Your task to perform on an android device: toggle translation in the chrome app Image 0: 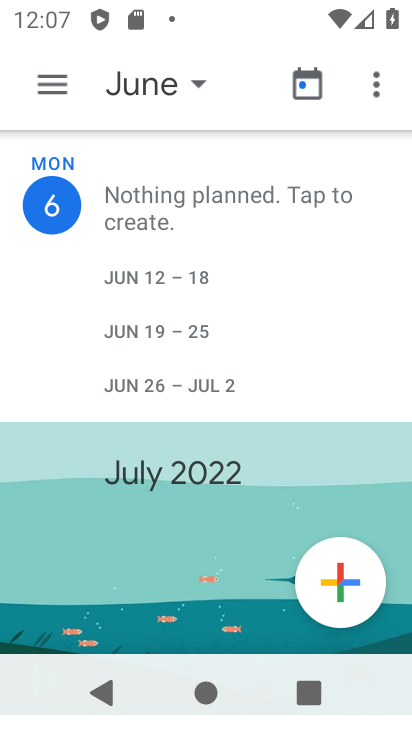
Step 0: press home button
Your task to perform on an android device: toggle translation in the chrome app Image 1: 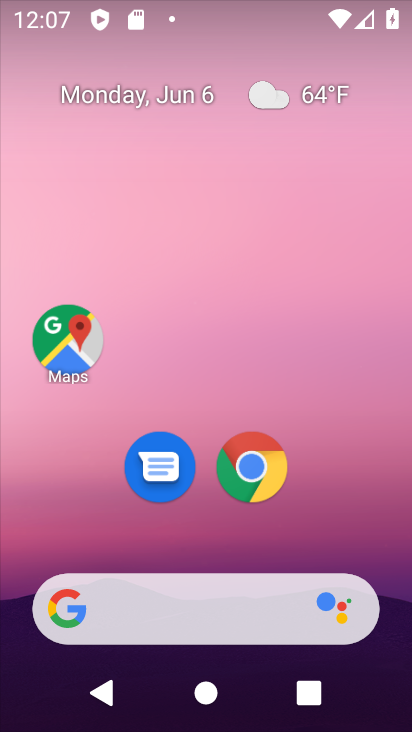
Step 1: click (270, 477)
Your task to perform on an android device: toggle translation in the chrome app Image 2: 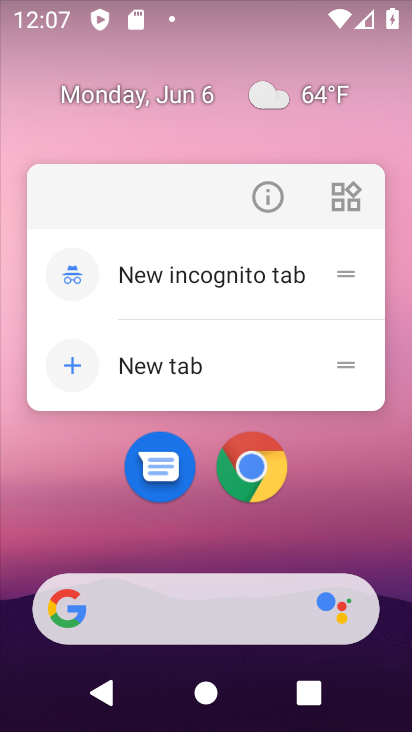
Step 2: click (270, 477)
Your task to perform on an android device: toggle translation in the chrome app Image 3: 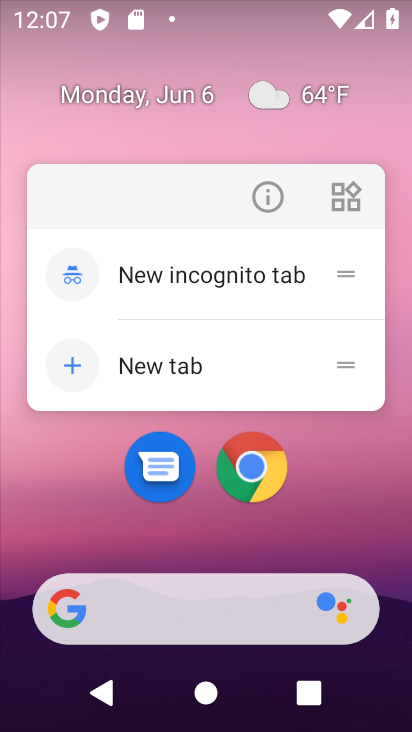
Step 3: click (270, 477)
Your task to perform on an android device: toggle translation in the chrome app Image 4: 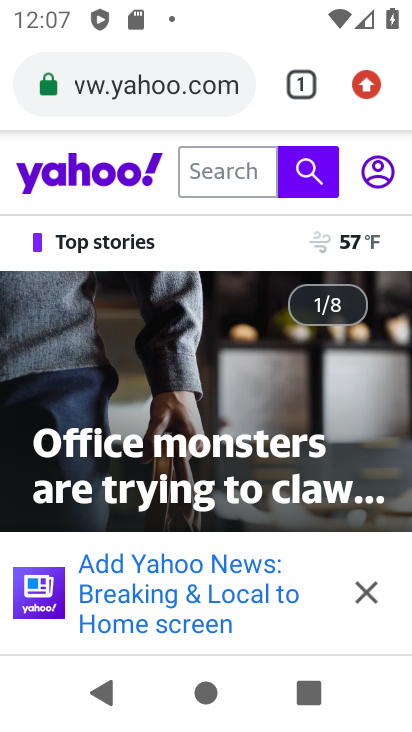
Step 4: press back button
Your task to perform on an android device: toggle translation in the chrome app Image 5: 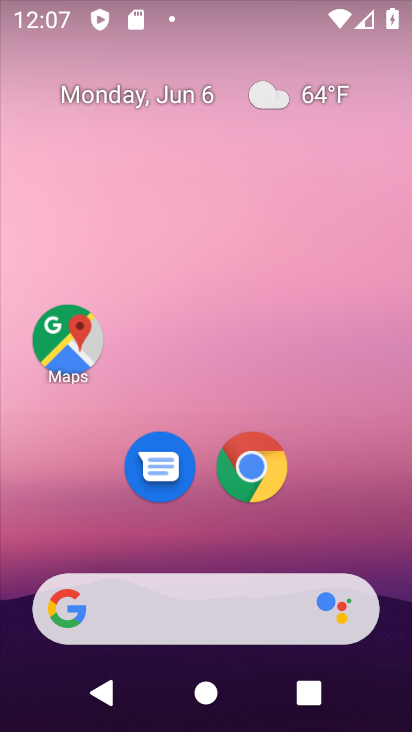
Step 5: drag from (360, 390) to (279, 50)
Your task to perform on an android device: toggle translation in the chrome app Image 6: 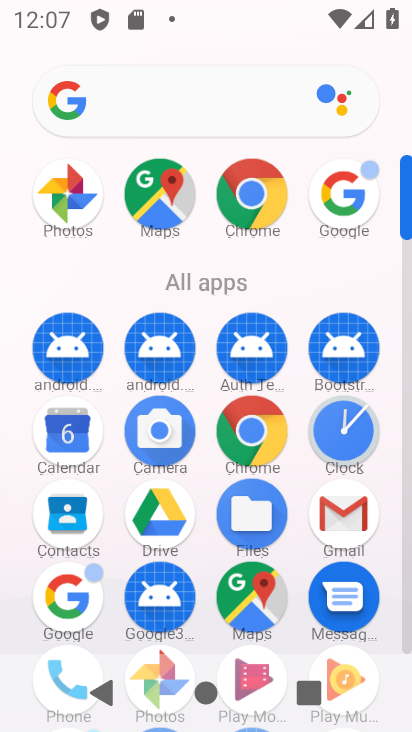
Step 6: click (263, 211)
Your task to perform on an android device: toggle translation in the chrome app Image 7: 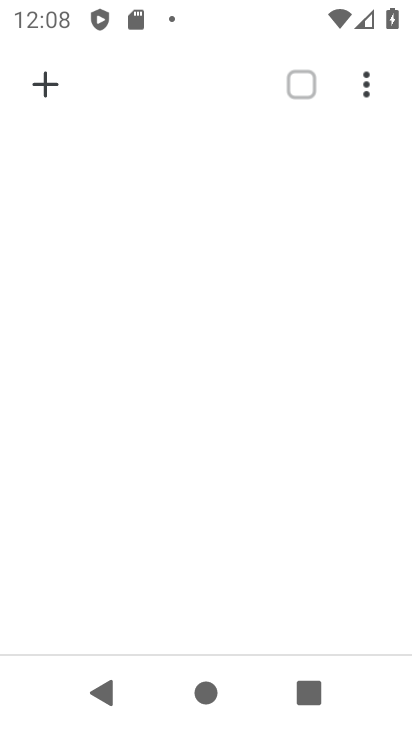
Step 7: click (369, 70)
Your task to perform on an android device: toggle translation in the chrome app Image 8: 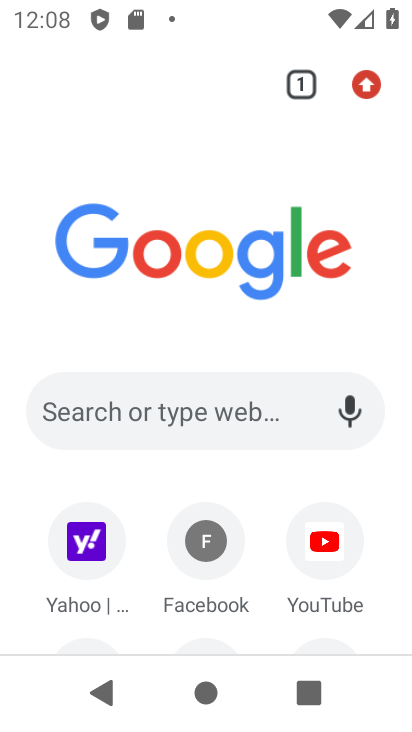
Step 8: click (369, 94)
Your task to perform on an android device: toggle translation in the chrome app Image 9: 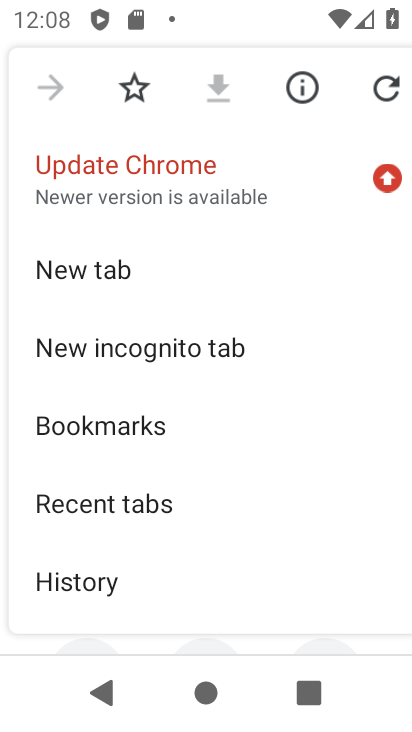
Step 9: drag from (146, 616) to (229, 166)
Your task to perform on an android device: toggle translation in the chrome app Image 10: 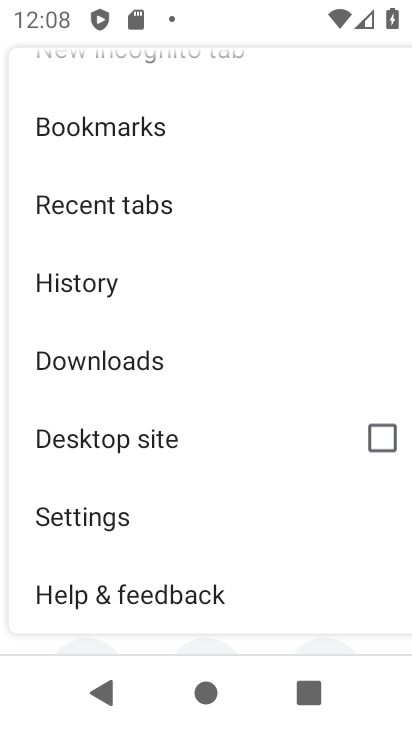
Step 10: click (143, 503)
Your task to perform on an android device: toggle translation in the chrome app Image 11: 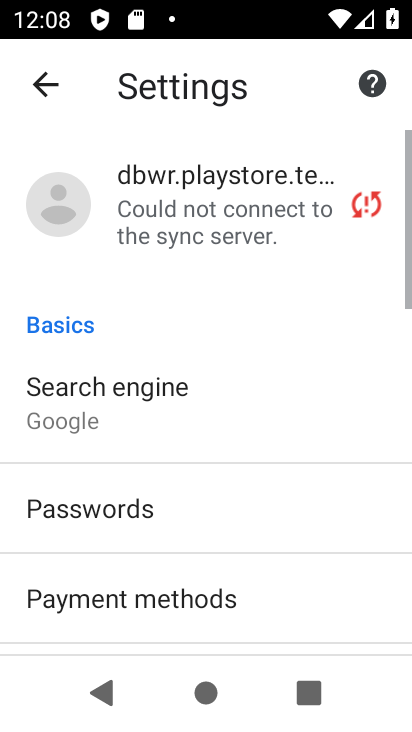
Step 11: drag from (119, 593) to (183, 136)
Your task to perform on an android device: toggle translation in the chrome app Image 12: 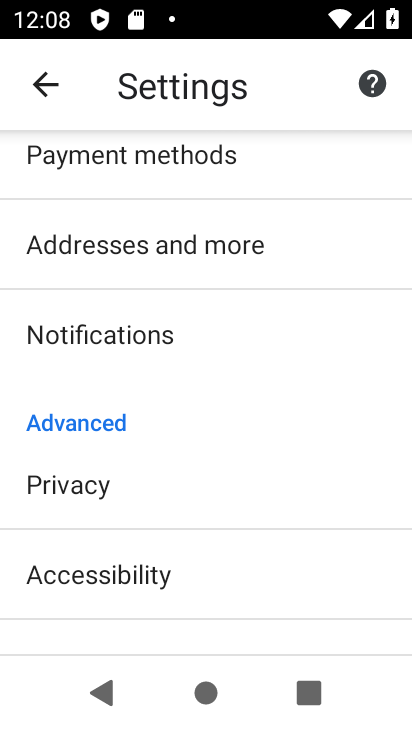
Step 12: drag from (159, 593) to (219, 162)
Your task to perform on an android device: toggle translation in the chrome app Image 13: 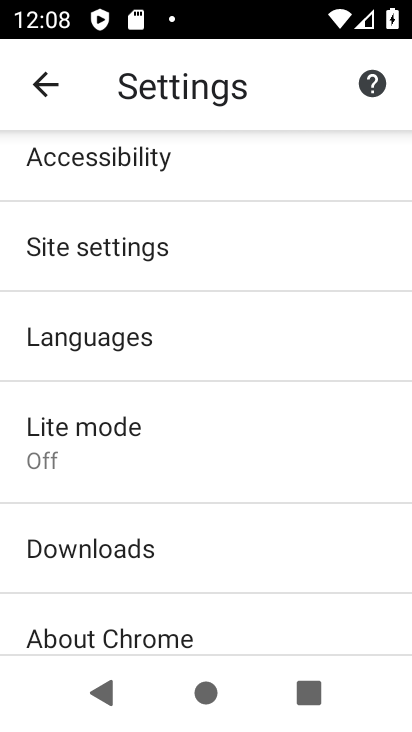
Step 13: click (99, 345)
Your task to perform on an android device: toggle translation in the chrome app Image 14: 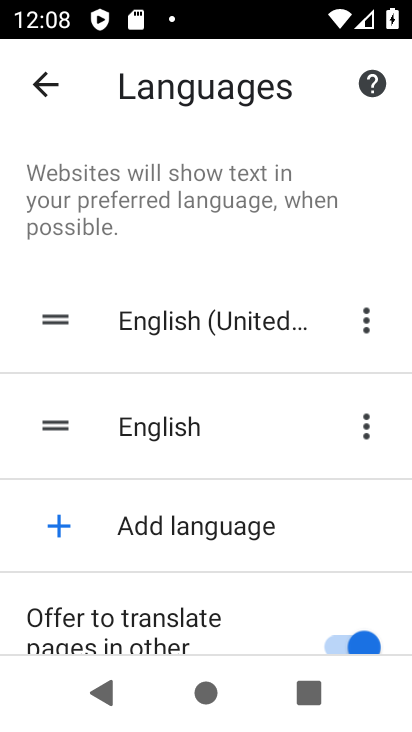
Step 14: click (322, 618)
Your task to perform on an android device: toggle translation in the chrome app Image 15: 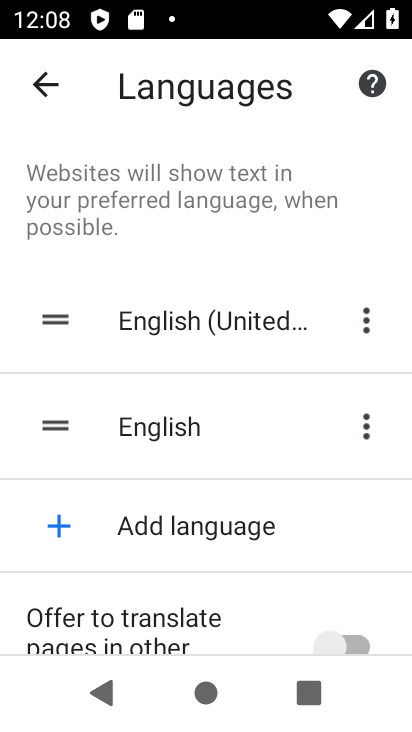
Step 15: task complete